Your task to perform on an android device: Show me popular games on the Play Store Image 0: 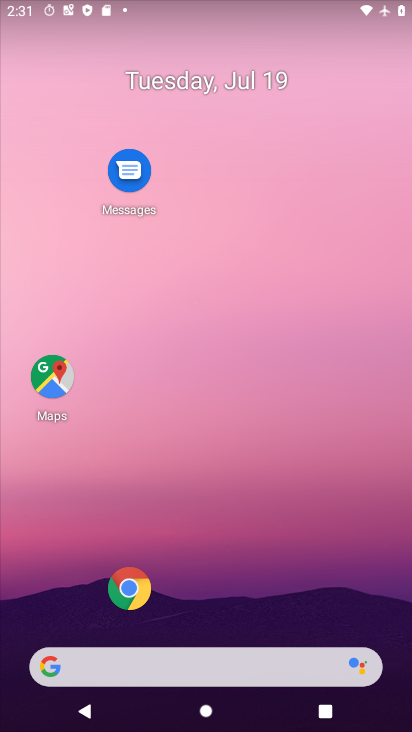
Step 0: drag from (154, 392) to (239, 142)
Your task to perform on an android device: Show me popular games on the Play Store Image 1: 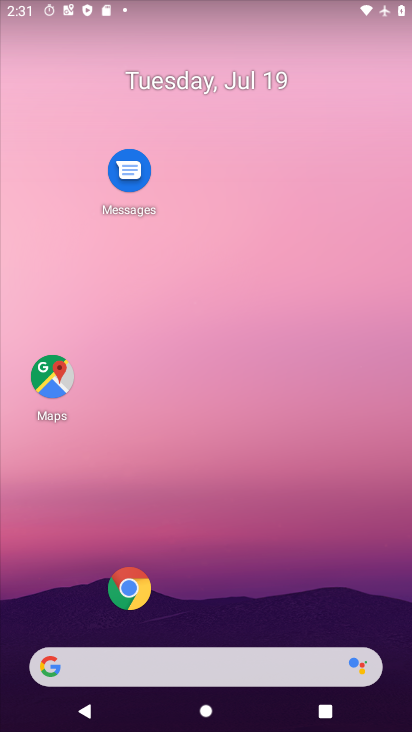
Step 1: drag from (27, 682) to (284, 2)
Your task to perform on an android device: Show me popular games on the Play Store Image 2: 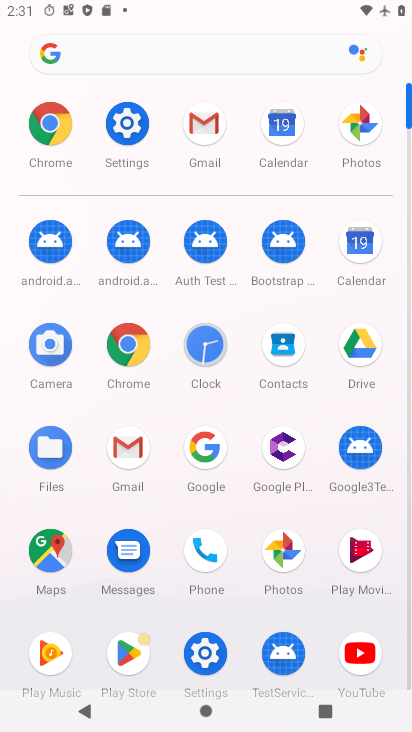
Step 2: click (128, 650)
Your task to perform on an android device: Show me popular games on the Play Store Image 3: 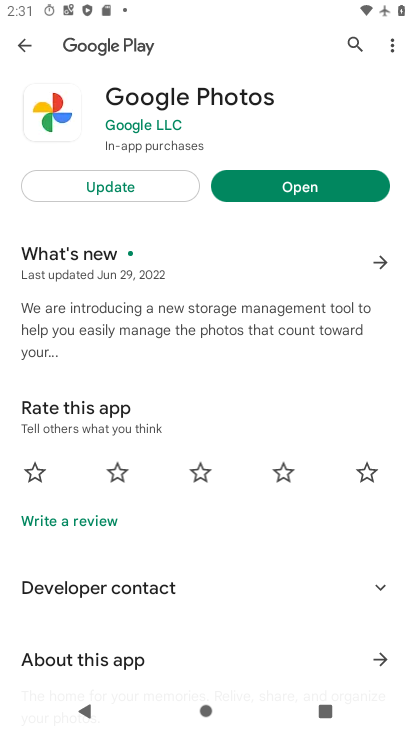
Step 3: click (18, 50)
Your task to perform on an android device: Show me popular games on the Play Store Image 4: 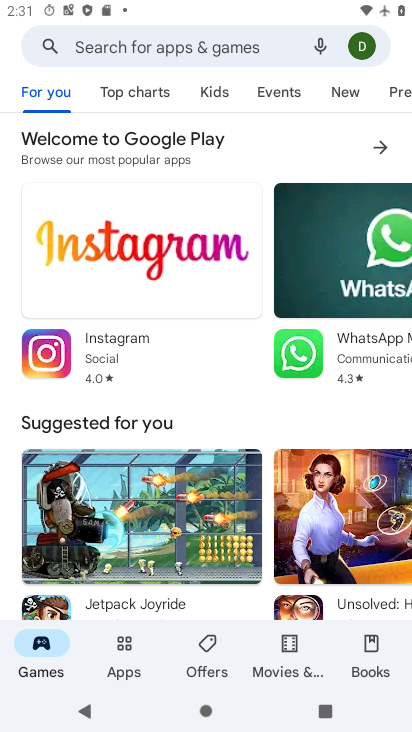
Step 4: click (83, 42)
Your task to perform on an android device: Show me popular games on the Play Store Image 5: 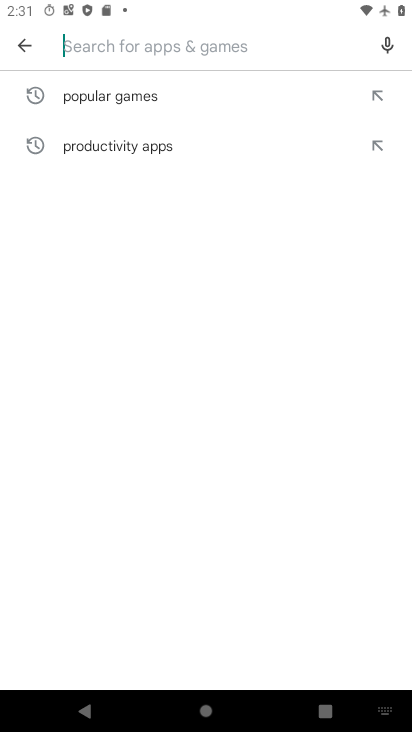
Step 5: click (84, 43)
Your task to perform on an android device: Show me popular games on the Play Store Image 6: 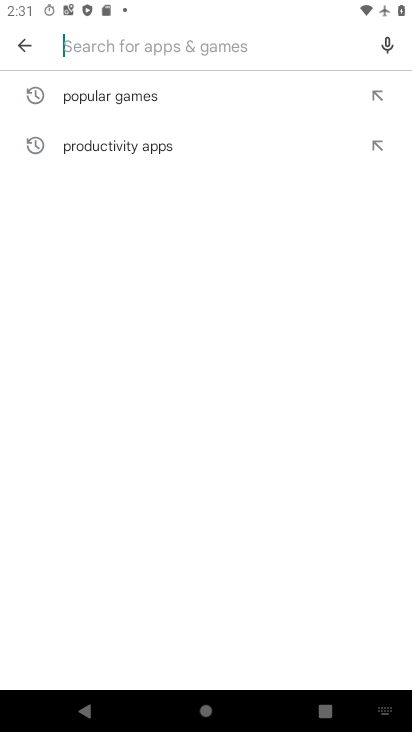
Step 6: click (117, 110)
Your task to perform on an android device: Show me popular games on the Play Store Image 7: 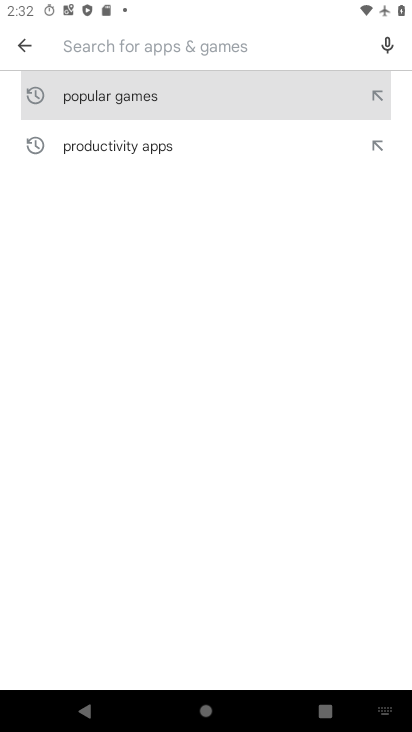
Step 7: click (117, 99)
Your task to perform on an android device: Show me popular games on the Play Store Image 8: 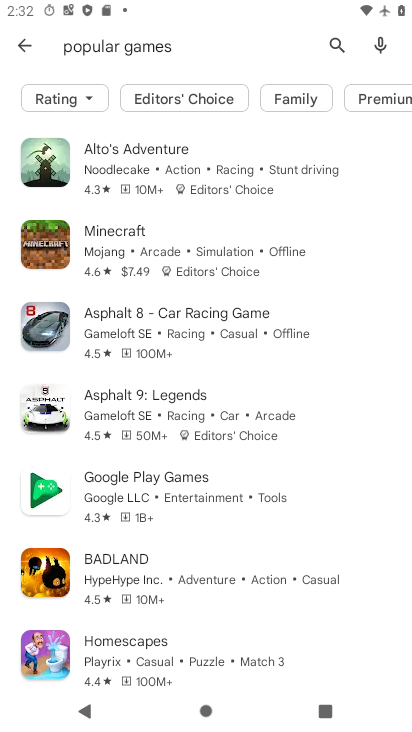
Step 8: task complete